Your task to perform on an android device: check storage Image 0: 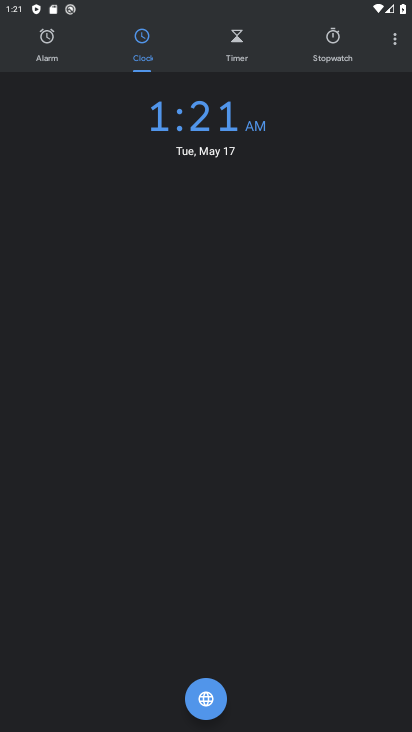
Step 0: press home button
Your task to perform on an android device: check storage Image 1: 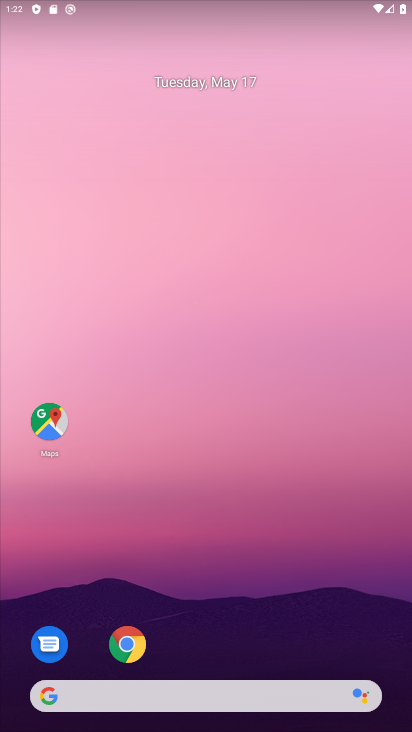
Step 1: drag from (188, 691) to (204, 193)
Your task to perform on an android device: check storage Image 2: 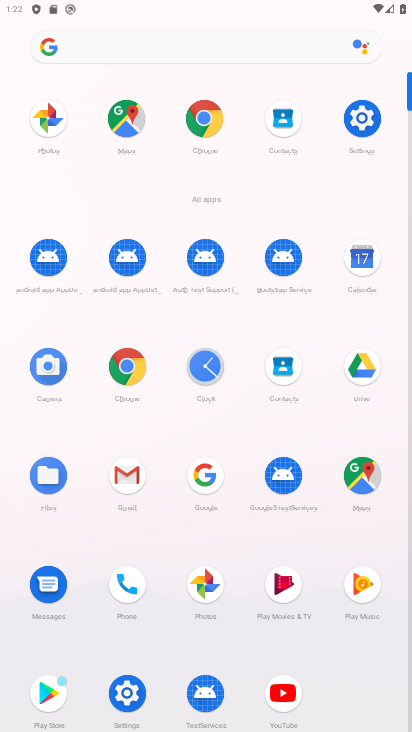
Step 2: click (355, 144)
Your task to perform on an android device: check storage Image 3: 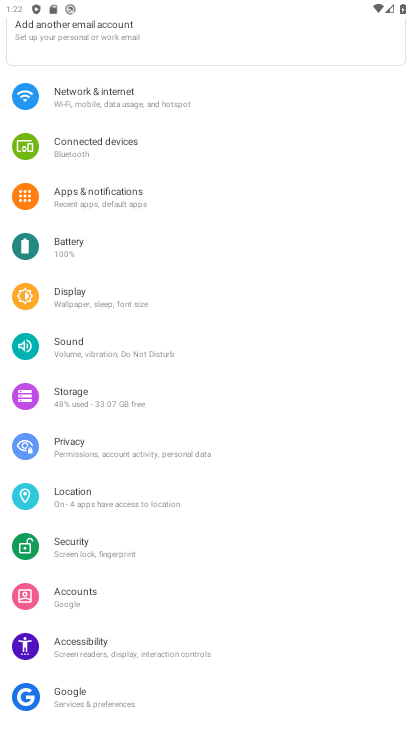
Step 3: click (112, 398)
Your task to perform on an android device: check storage Image 4: 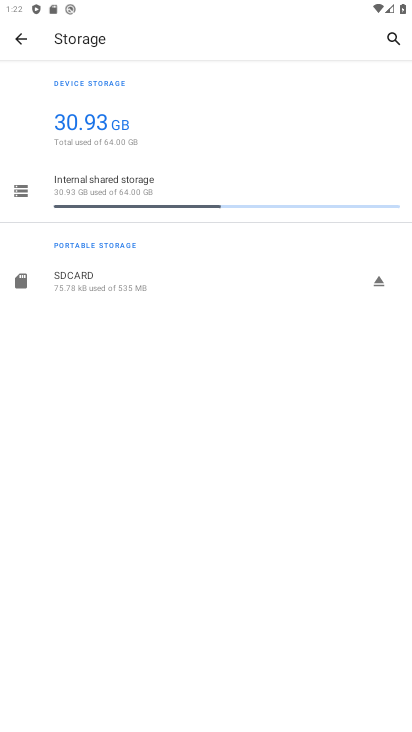
Step 4: click (159, 171)
Your task to perform on an android device: check storage Image 5: 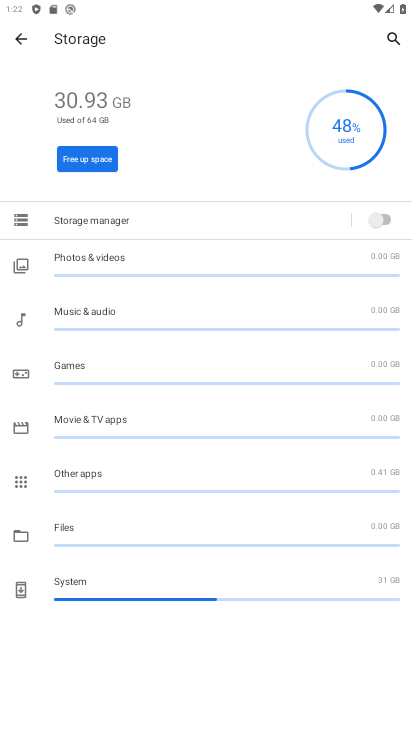
Step 5: task complete